Your task to perform on an android device: set the timer Image 0: 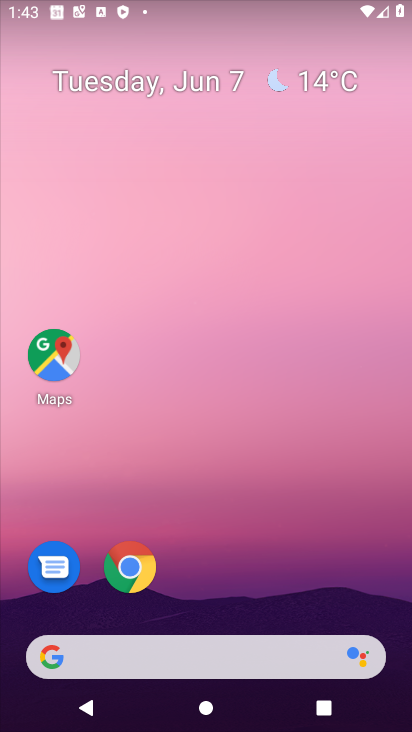
Step 0: drag from (232, 642) to (232, 5)
Your task to perform on an android device: set the timer Image 1: 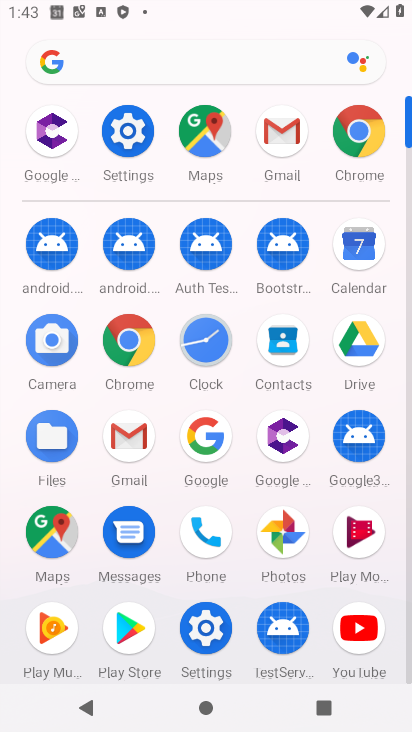
Step 1: click (213, 355)
Your task to perform on an android device: set the timer Image 2: 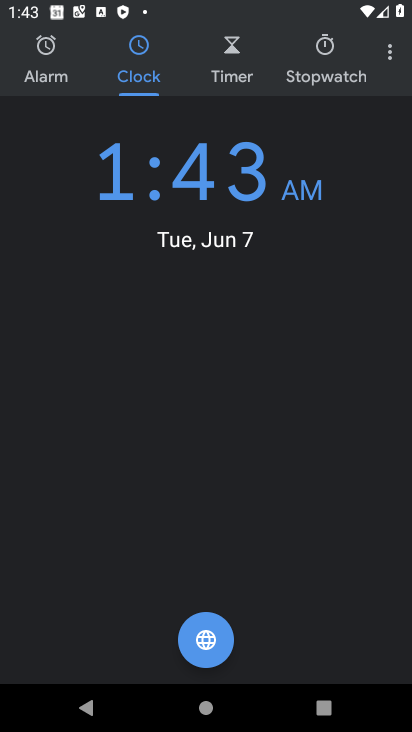
Step 2: click (238, 56)
Your task to perform on an android device: set the timer Image 3: 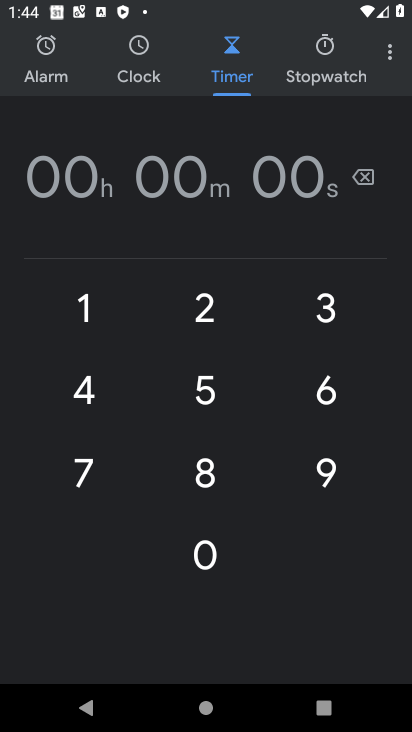
Step 3: click (214, 382)
Your task to perform on an android device: set the timer Image 4: 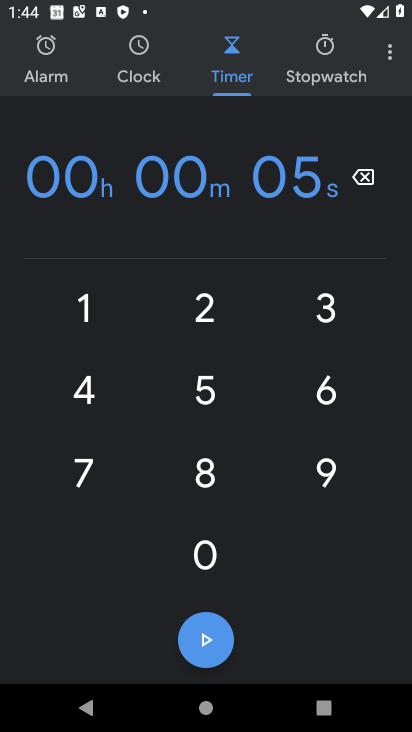
Step 4: click (214, 308)
Your task to perform on an android device: set the timer Image 5: 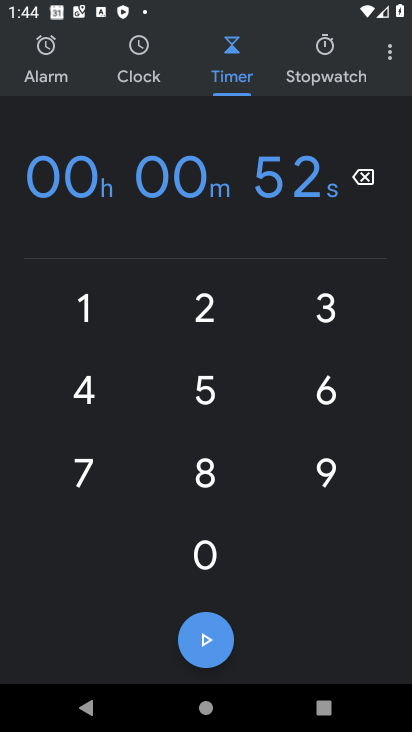
Step 5: click (325, 315)
Your task to perform on an android device: set the timer Image 6: 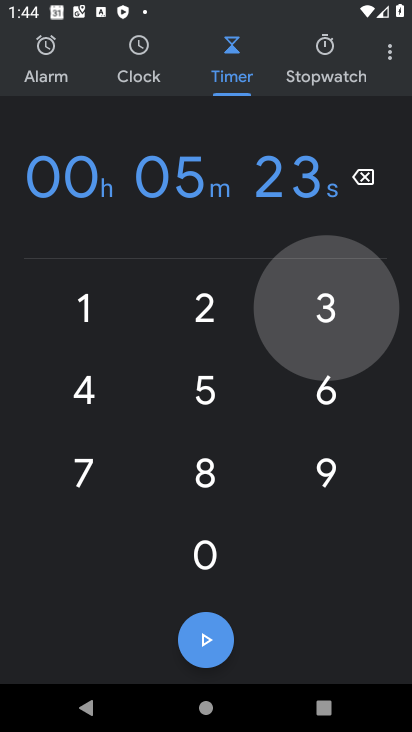
Step 6: click (340, 381)
Your task to perform on an android device: set the timer Image 7: 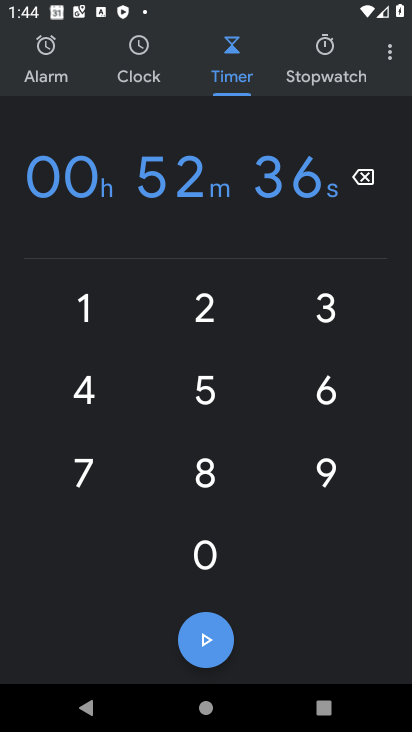
Step 7: click (214, 472)
Your task to perform on an android device: set the timer Image 8: 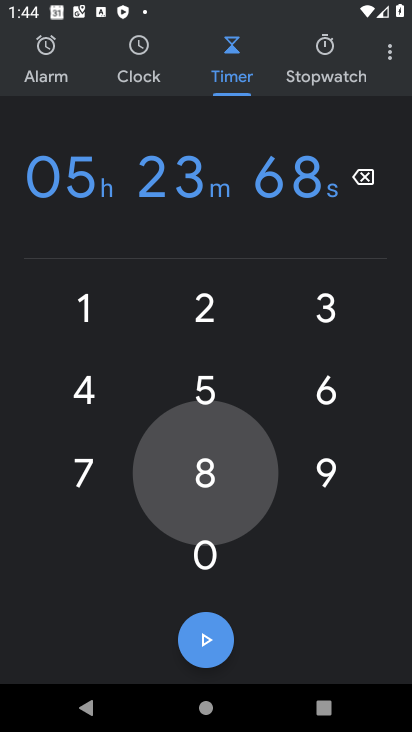
Step 8: click (316, 416)
Your task to perform on an android device: set the timer Image 9: 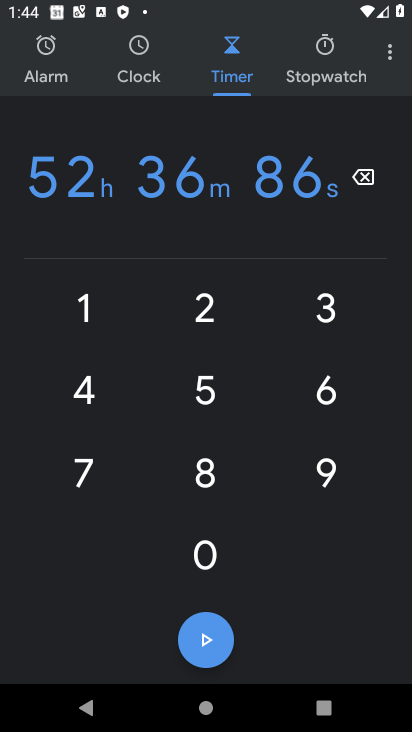
Step 9: click (206, 630)
Your task to perform on an android device: set the timer Image 10: 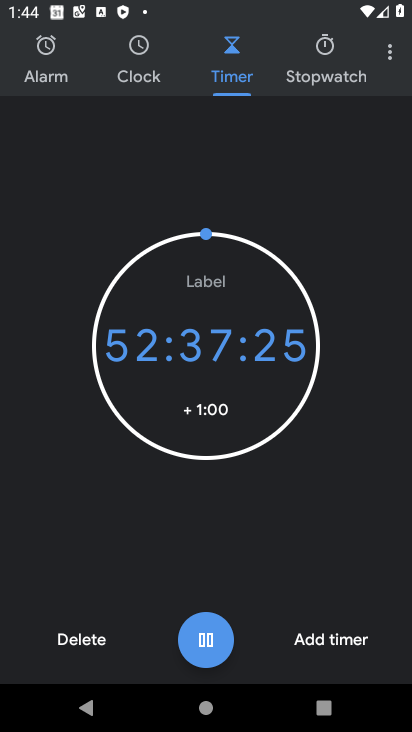
Step 10: task complete